Your task to perform on an android device: add a contact in the contacts app Image 0: 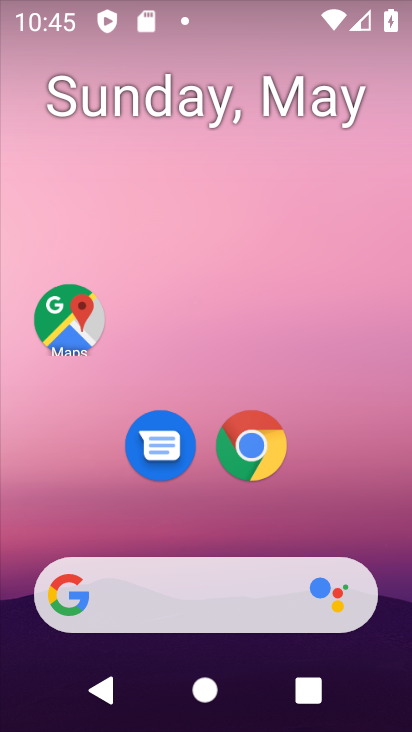
Step 0: drag from (207, 519) to (265, 143)
Your task to perform on an android device: add a contact in the contacts app Image 1: 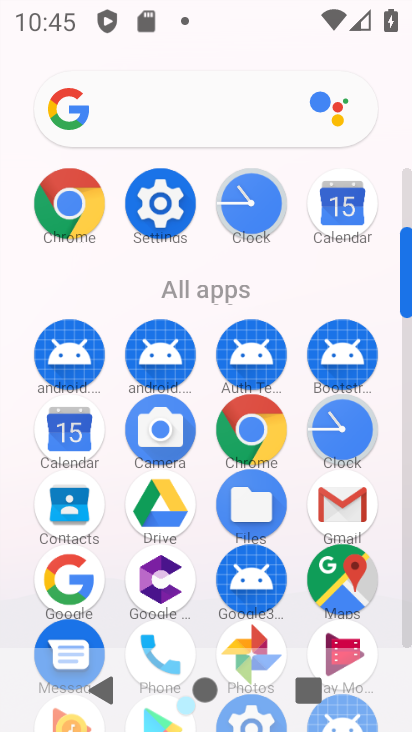
Step 1: click (63, 511)
Your task to perform on an android device: add a contact in the contacts app Image 2: 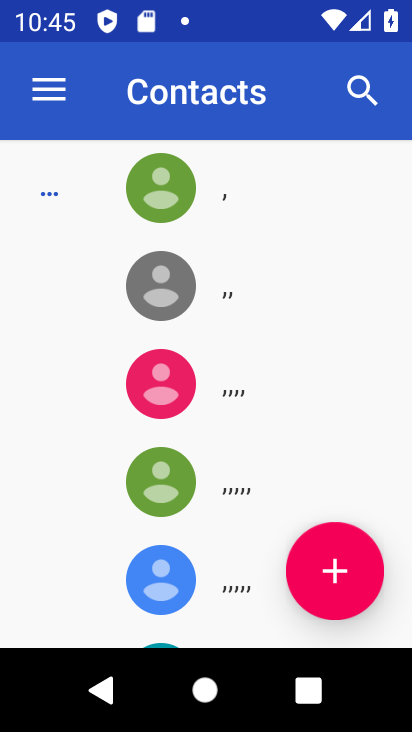
Step 2: click (349, 579)
Your task to perform on an android device: add a contact in the contacts app Image 3: 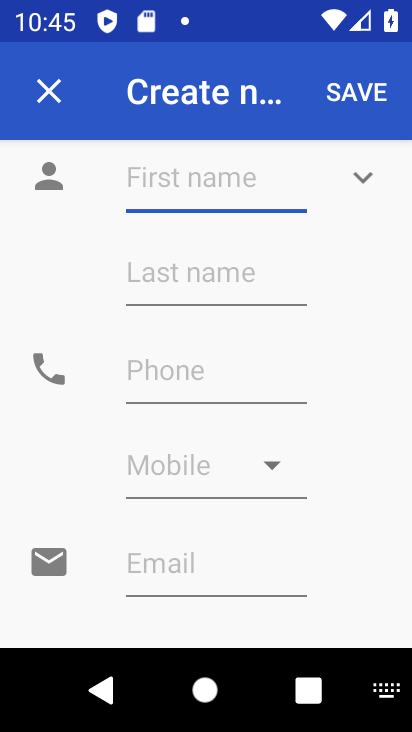
Step 3: type "dcdc"
Your task to perform on an android device: add a contact in the contacts app Image 4: 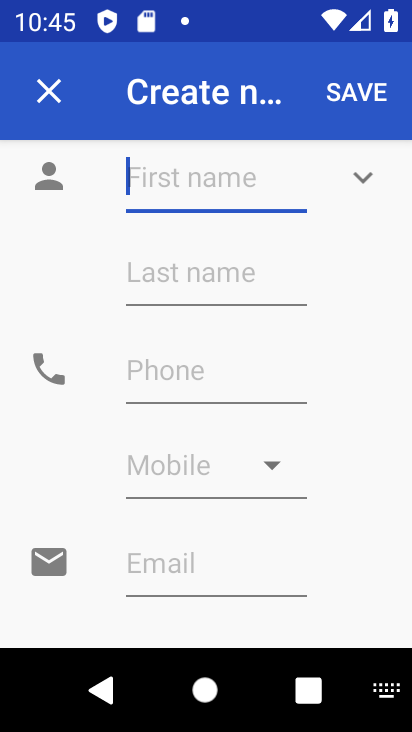
Step 4: click (140, 260)
Your task to perform on an android device: add a contact in the contacts app Image 5: 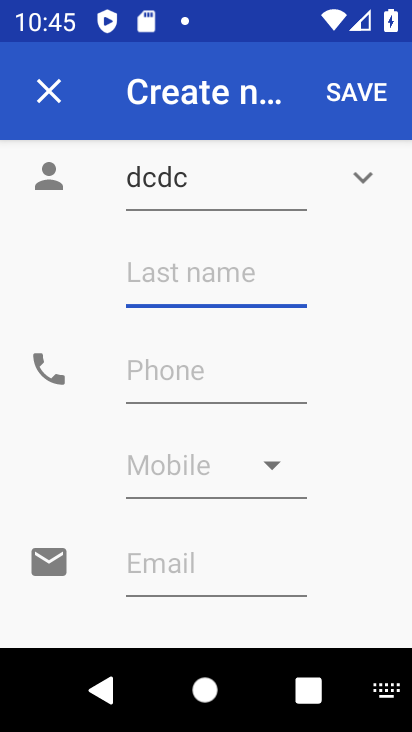
Step 5: type "dcdcd"
Your task to perform on an android device: add a contact in the contacts app Image 6: 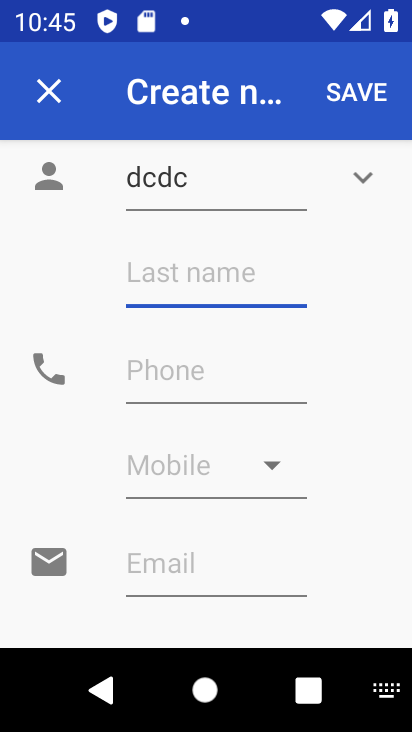
Step 6: click (133, 365)
Your task to perform on an android device: add a contact in the contacts app Image 7: 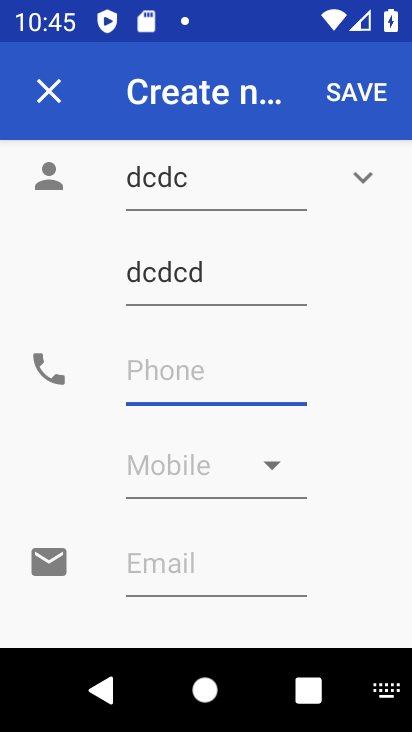
Step 7: type "54554"
Your task to perform on an android device: add a contact in the contacts app Image 8: 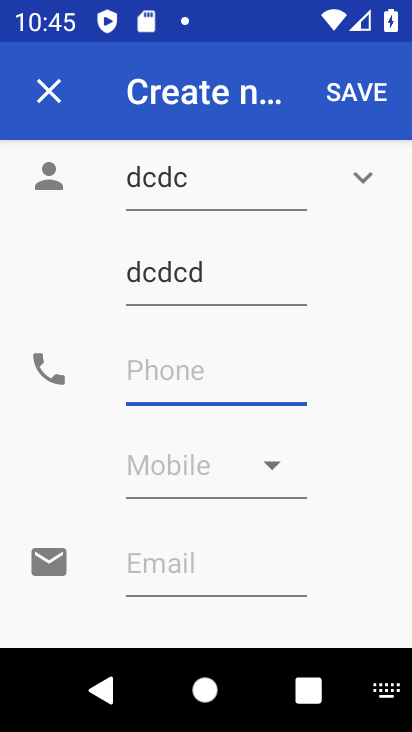
Step 8: click (196, 457)
Your task to perform on an android device: add a contact in the contacts app Image 9: 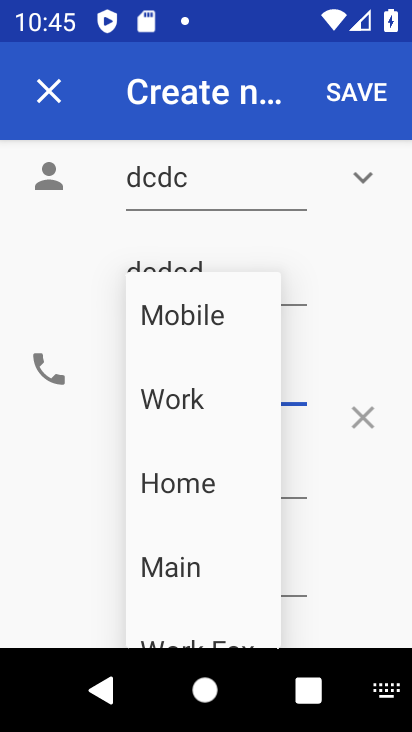
Step 9: click (379, 86)
Your task to perform on an android device: add a contact in the contacts app Image 10: 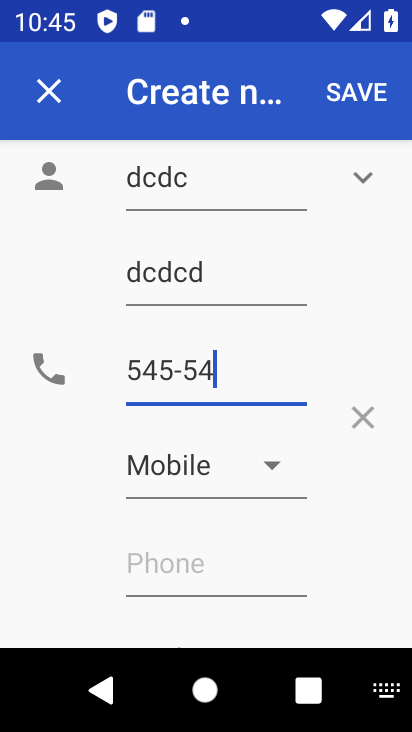
Step 10: click (323, 84)
Your task to perform on an android device: add a contact in the contacts app Image 11: 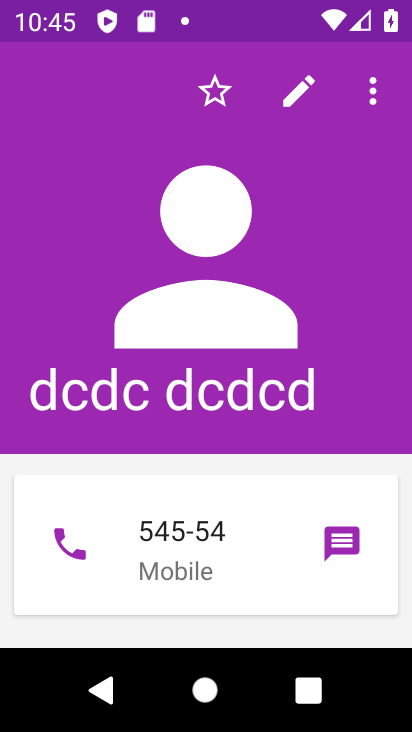
Step 11: task complete